Your task to perform on an android device: Open Chrome and go to settings Image 0: 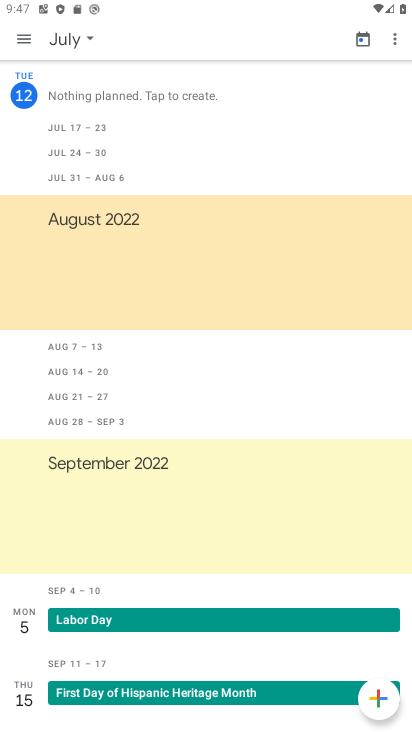
Step 0: press home button
Your task to perform on an android device: Open Chrome and go to settings Image 1: 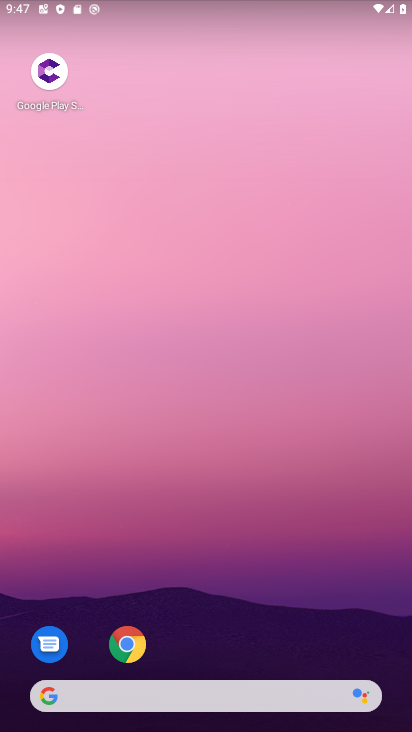
Step 1: click (131, 630)
Your task to perform on an android device: Open Chrome and go to settings Image 2: 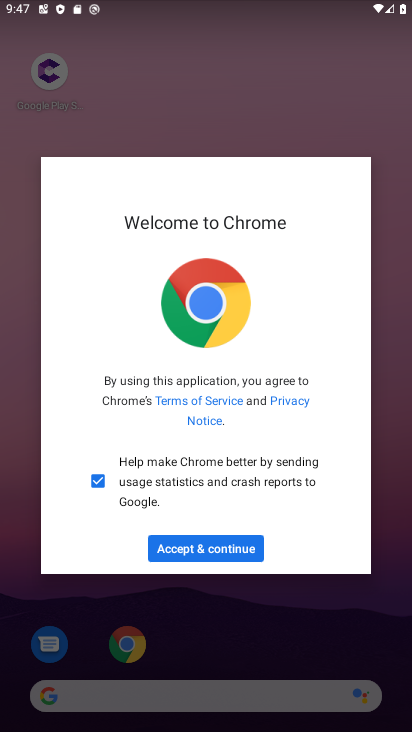
Step 2: click (219, 550)
Your task to perform on an android device: Open Chrome and go to settings Image 3: 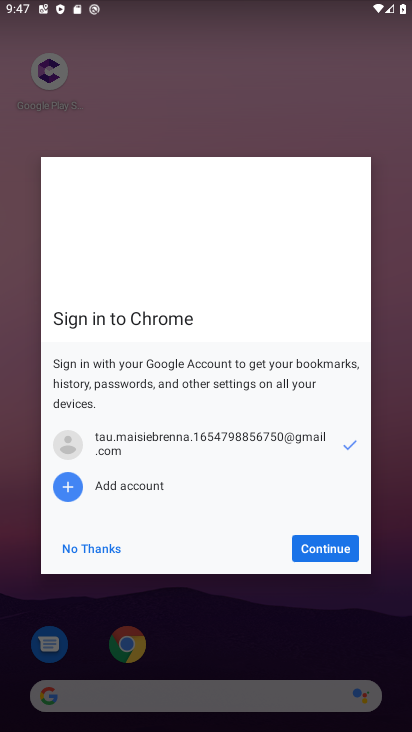
Step 3: click (302, 557)
Your task to perform on an android device: Open Chrome and go to settings Image 4: 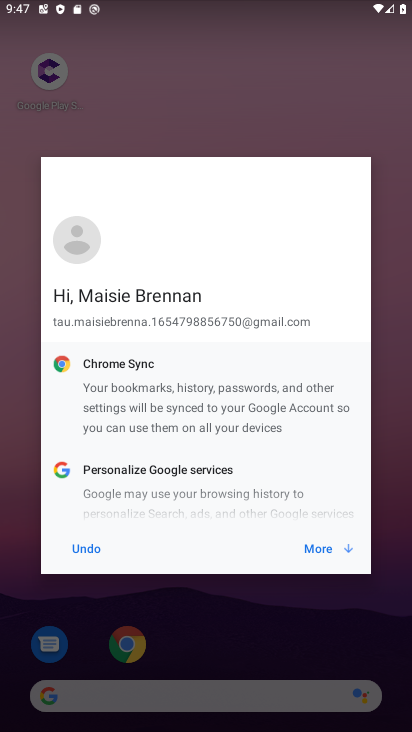
Step 4: click (323, 549)
Your task to perform on an android device: Open Chrome and go to settings Image 5: 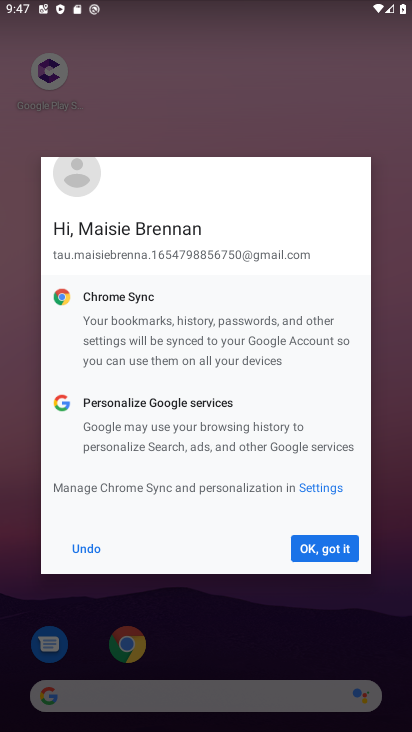
Step 5: click (323, 549)
Your task to perform on an android device: Open Chrome and go to settings Image 6: 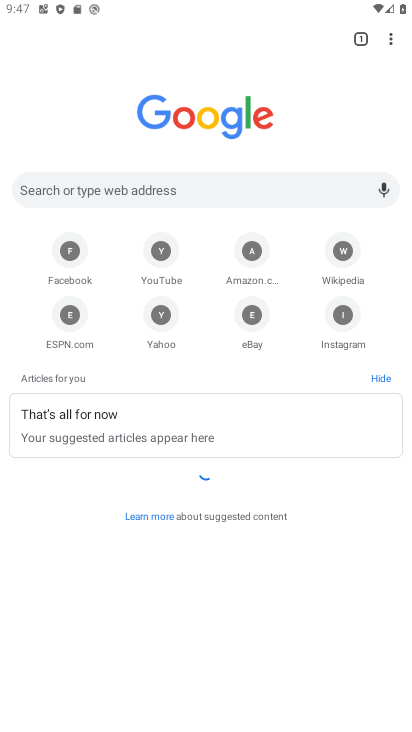
Step 6: click (395, 34)
Your task to perform on an android device: Open Chrome and go to settings Image 7: 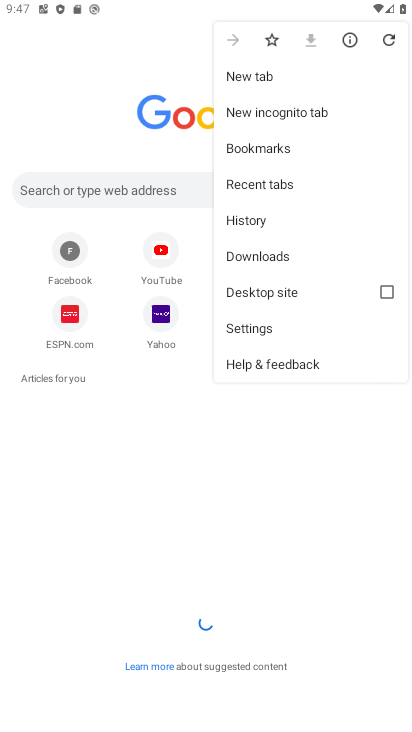
Step 7: click (260, 326)
Your task to perform on an android device: Open Chrome and go to settings Image 8: 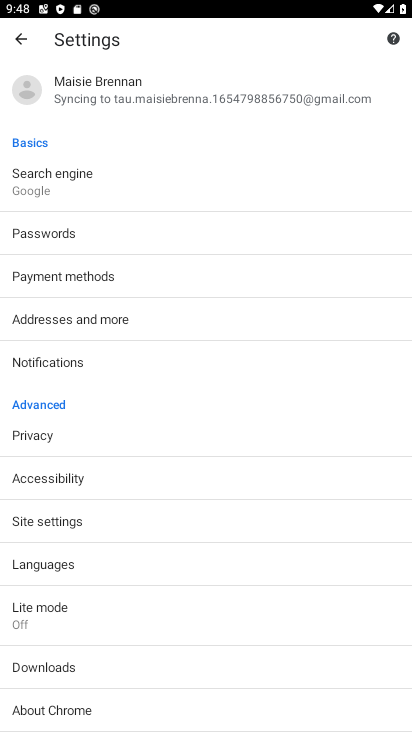
Step 8: task complete